Your task to perform on an android device: search for starred emails in the gmail app Image 0: 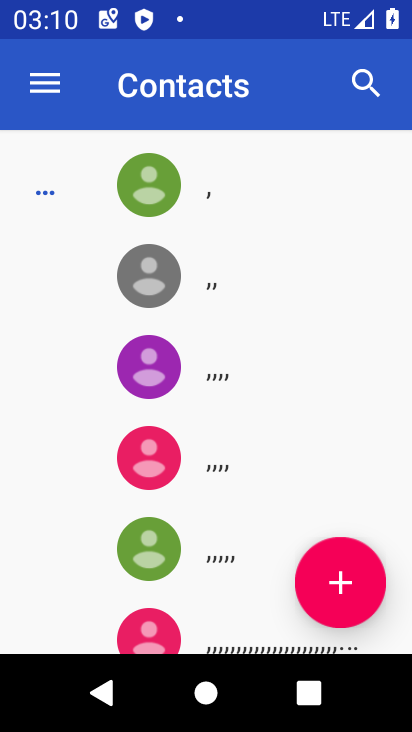
Step 0: press home button
Your task to perform on an android device: search for starred emails in the gmail app Image 1: 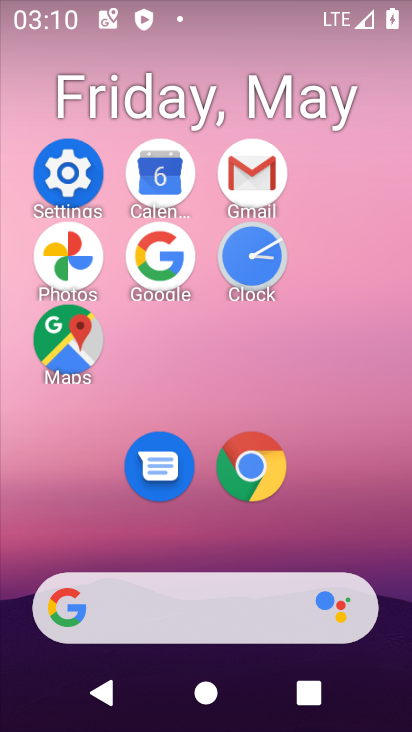
Step 1: click (271, 174)
Your task to perform on an android device: search for starred emails in the gmail app Image 2: 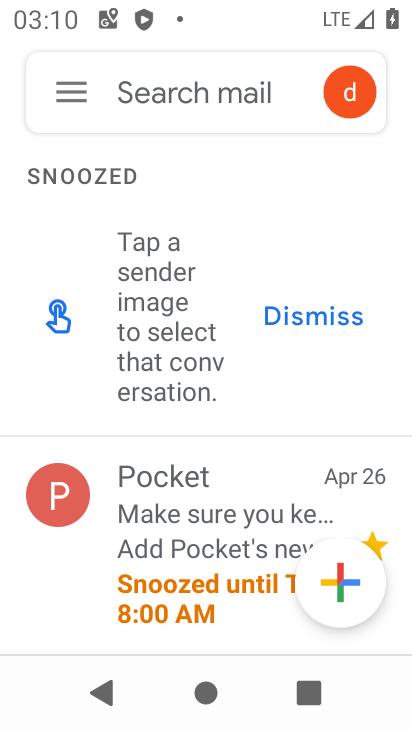
Step 2: click (74, 92)
Your task to perform on an android device: search for starred emails in the gmail app Image 3: 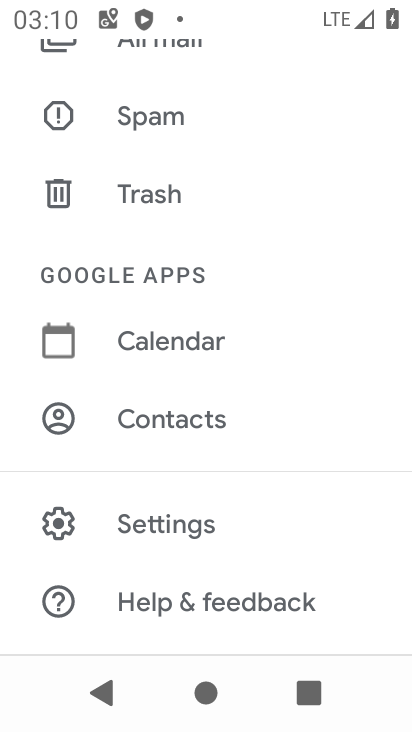
Step 3: drag from (221, 128) to (215, 542)
Your task to perform on an android device: search for starred emails in the gmail app Image 4: 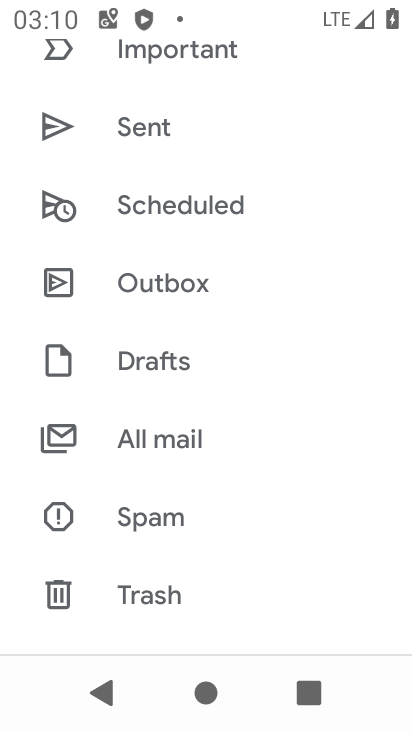
Step 4: drag from (251, 110) to (265, 495)
Your task to perform on an android device: search for starred emails in the gmail app Image 5: 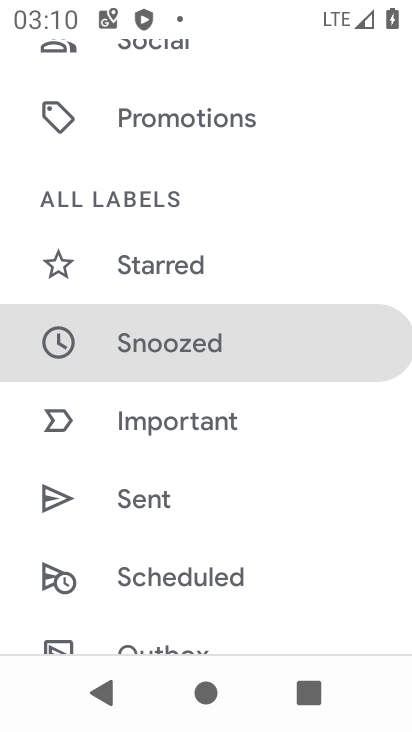
Step 5: click (222, 258)
Your task to perform on an android device: search for starred emails in the gmail app Image 6: 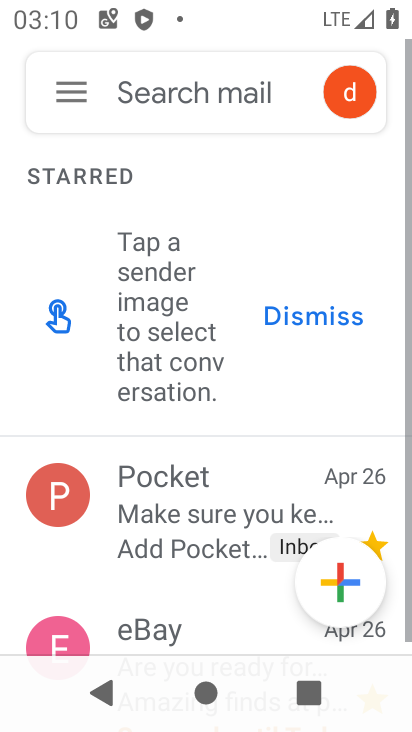
Step 6: task complete